Your task to perform on an android device: open chrome privacy settings Image 0: 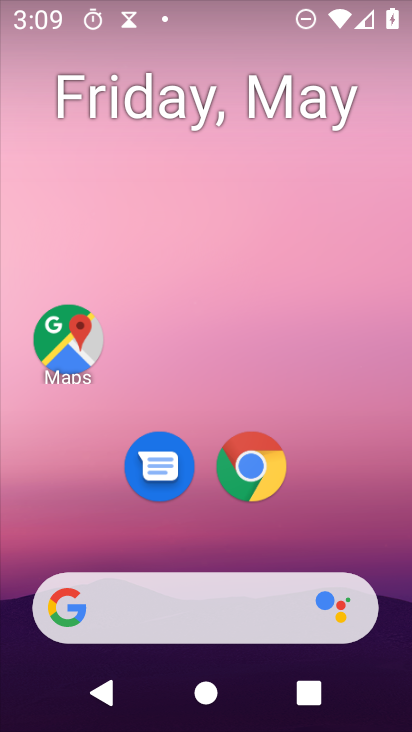
Step 0: drag from (359, 534) to (377, 121)
Your task to perform on an android device: open chrome privacy settings Image 1: 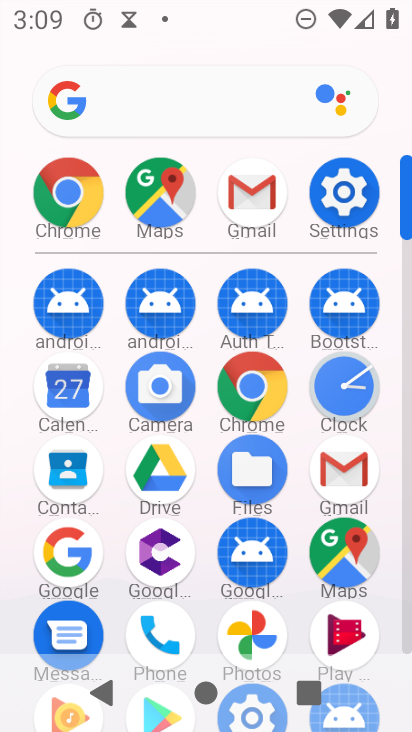
Step 1: click (73, 196)
Your task to perform on an android device: open chrome privacy settings Image 2: 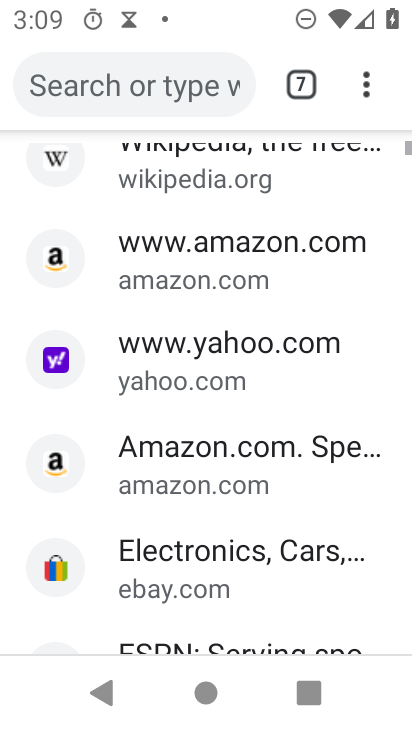
Step 2: drag from (256, 293) to (314, 659)
Your task to perform on an android device: open chrome privacy settings Image 3: 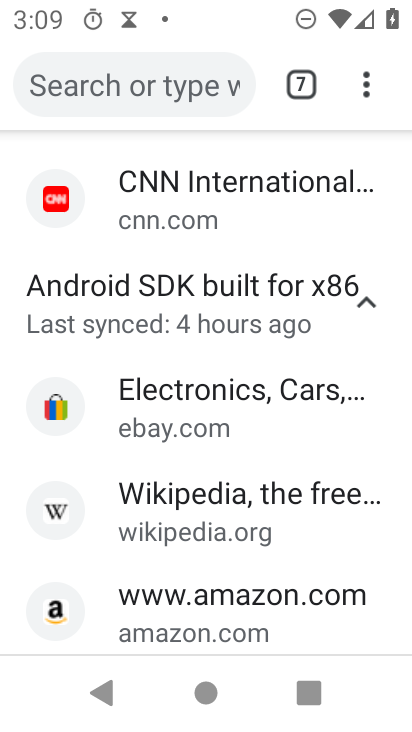
Step 3: drag from (283, 310) to (317, 635)
Your task to perform on an android device: open chrome privacy settings Image 4: 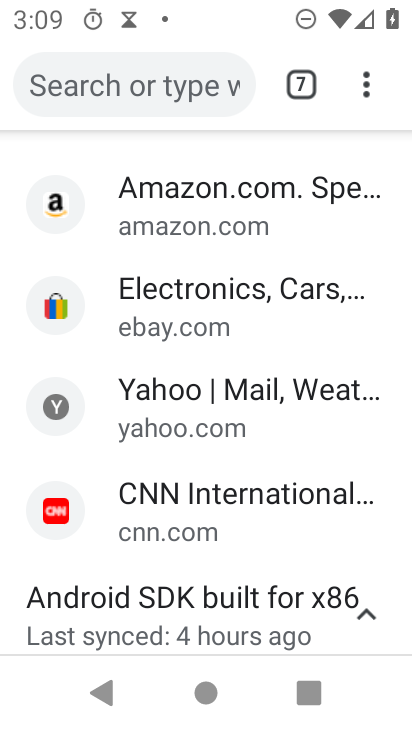
Step 4: drag from (263, 165) to (288, 644)
Your task to perform on an android device: open chrome privacy settings Image 5: 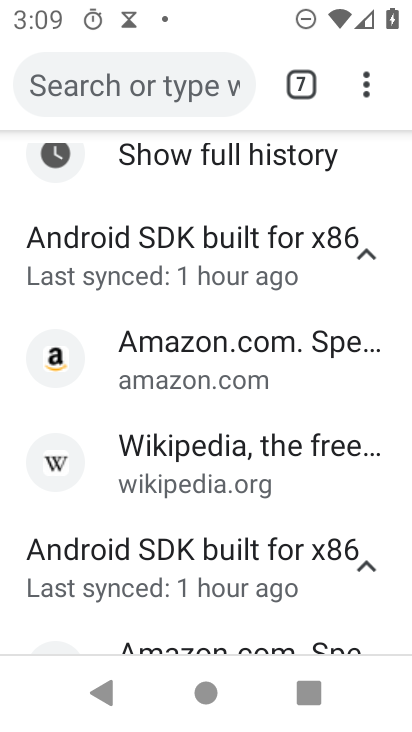
Step 5: drag from (259, 277) to (267, 643)
Your task to perform on an android device: open chrome privacy settings Image 6: 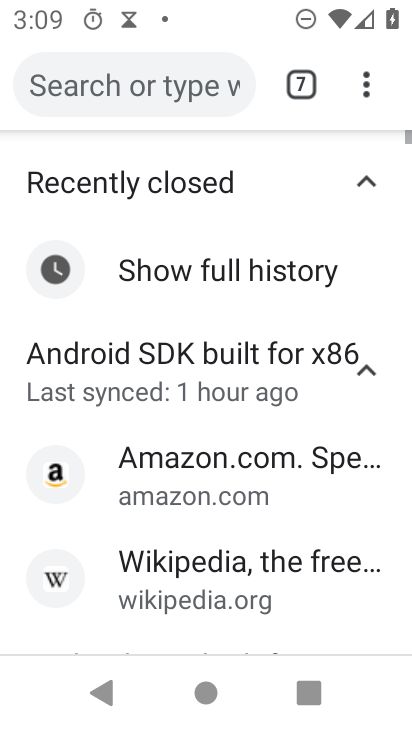
Step 6: drag from (367, 102) to (144, 485)
Your task to perform on an android device: open chrome privacy settings Image 7: 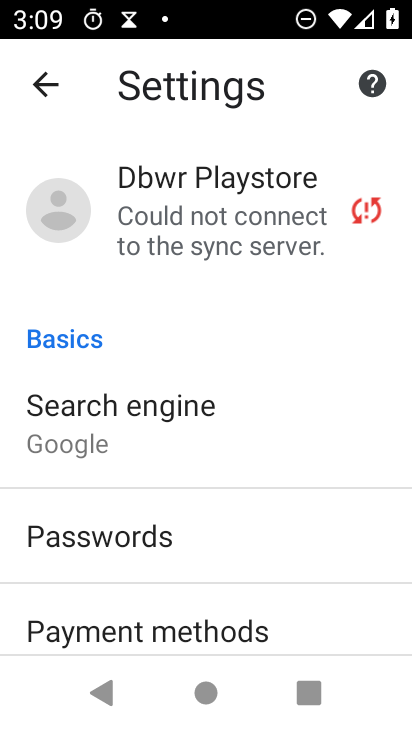
Step 7: drag from (287, 569) to (309, 156)
Your task to perform on an android device: open chrome privacy settings Image 8: 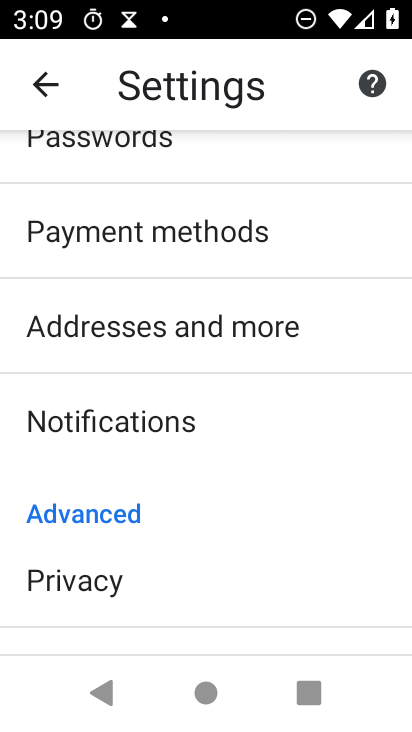
Step 8: drag from (247, 587) to (258, 334)
Your task to perform on an android device: open chrome privacy settings Image 9: 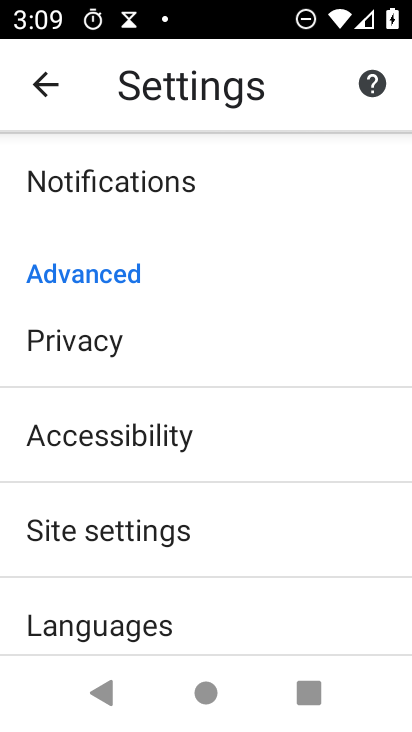
Step 9: click (188, 360)
Your task to perform on an android device: open chrome privacy settings Image 10: 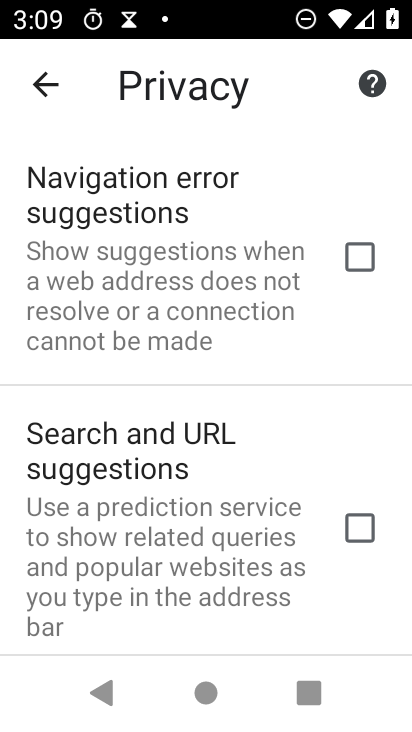
Step 10: task complete